Your task to perform on an android device: Go to Reddit.com Image 0: 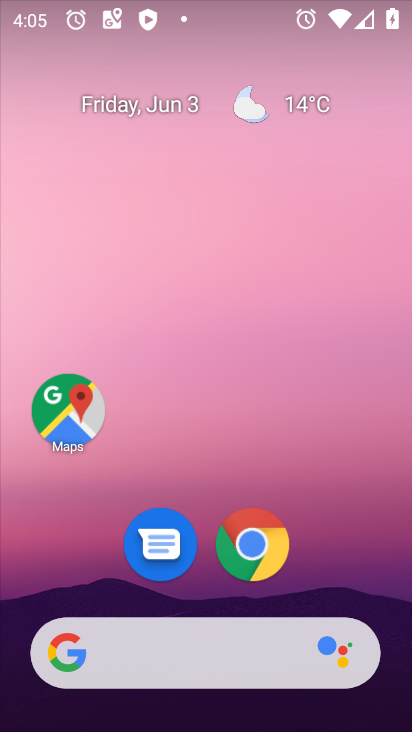
Step 0: click (249, 549)
Your task to perform on an android device: Go to Reddit.com Image 1: 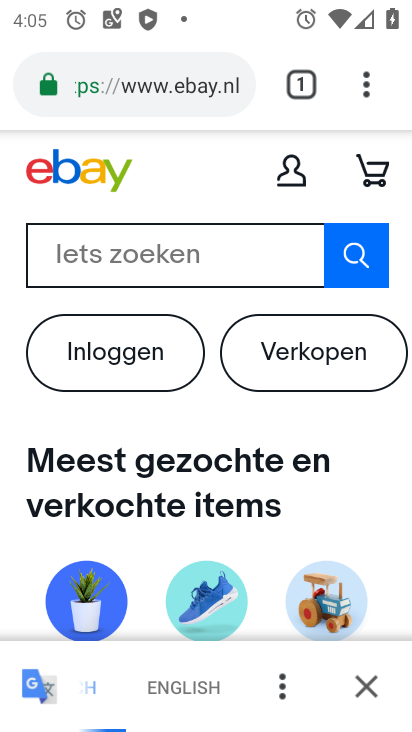
Step 1: click (217, 64)
Your task to perform on an android device: Go to Reddit.com Image 2: 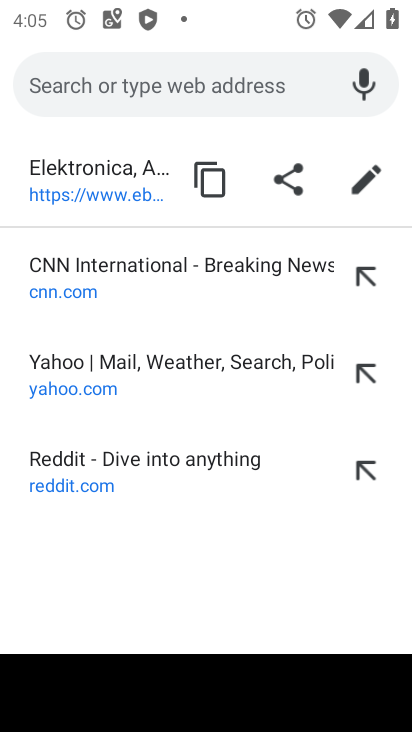
Step 2: type "reddit.com"
Your task to perform on an android device: Go to Reddit.com Image 3: 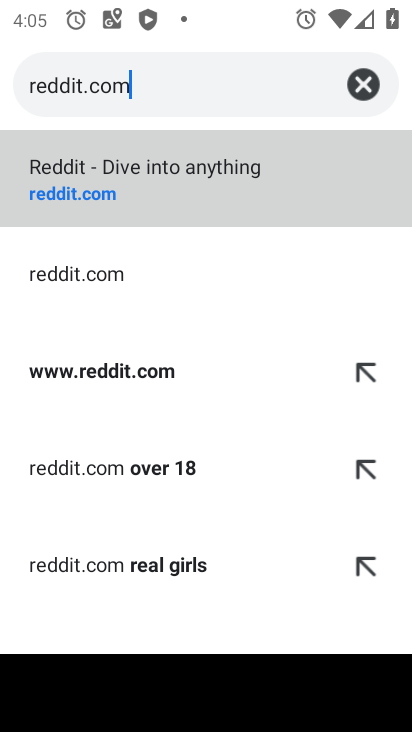
Step 3: click (103, 171)
Your task to perform on an android device: Go to Reddit.com Image 4: 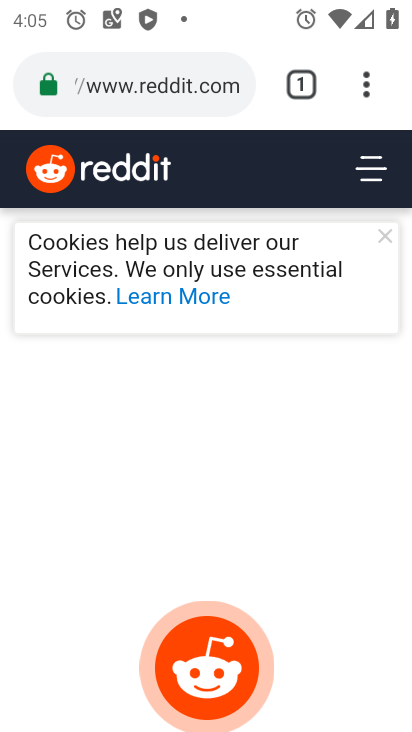
Step 4: task complete